Your task to perform on an android device: Go to accessibility settings Image 0: 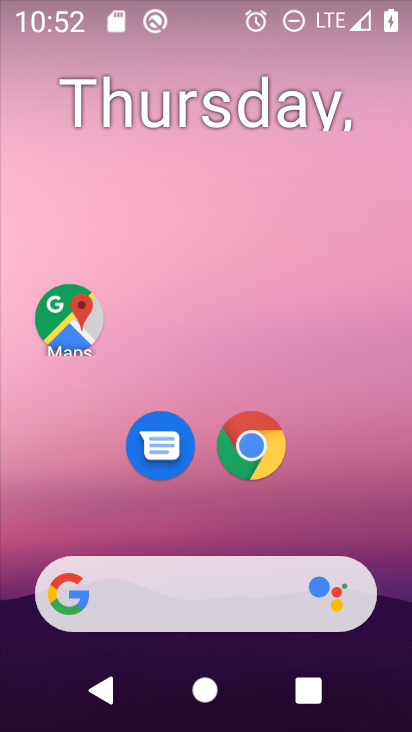
Step 0: drag from (397, 613) to (249, 53)
Your task to perform on an android device: Go to accessibility settings Image 1: 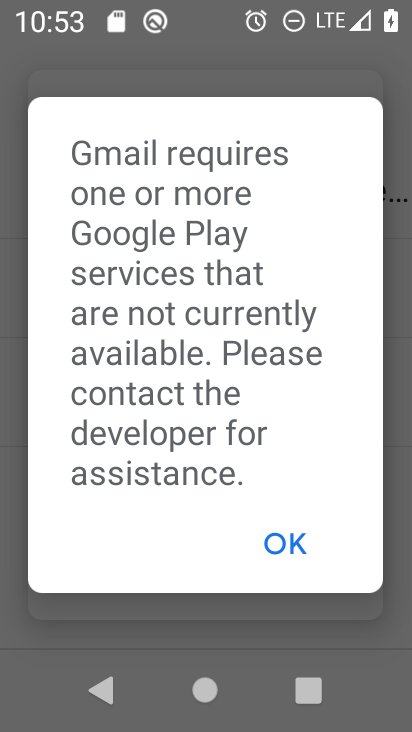
Step 1: press home button
Your task to perform on an android device: Go to accessibility settings Image 2: 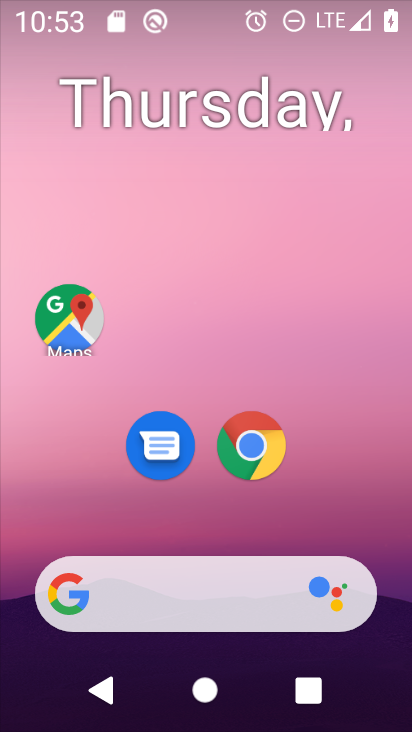
Step 2: drag from (411, 585) to (286, 57)
Your task to perform on an android device: Go to accessibility settings Image 3: 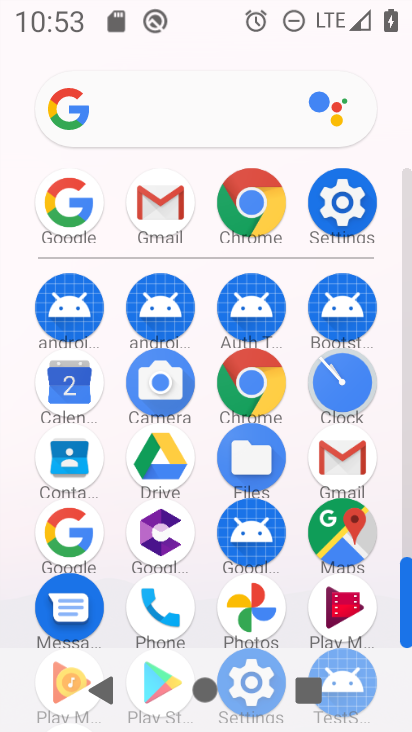
Step 3: click (355, 221)
Your task to perform on an android device: Go to accessibility settings Image 4: 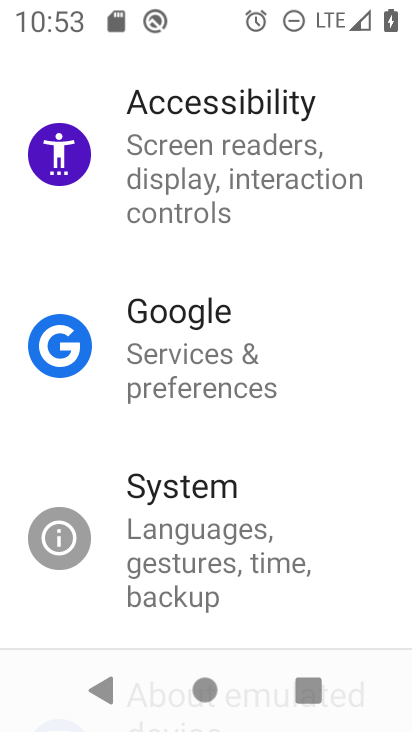
Step 4: click (249, 217)
Your task to perform on an android device: Go to accessibility settings Image 5: 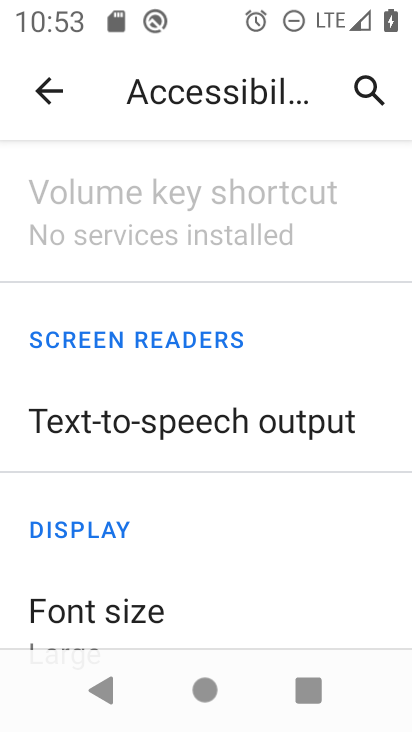
Step 5: task complete